Your task to perform on an android device: open app "PUBG MOBILE" Image 0: 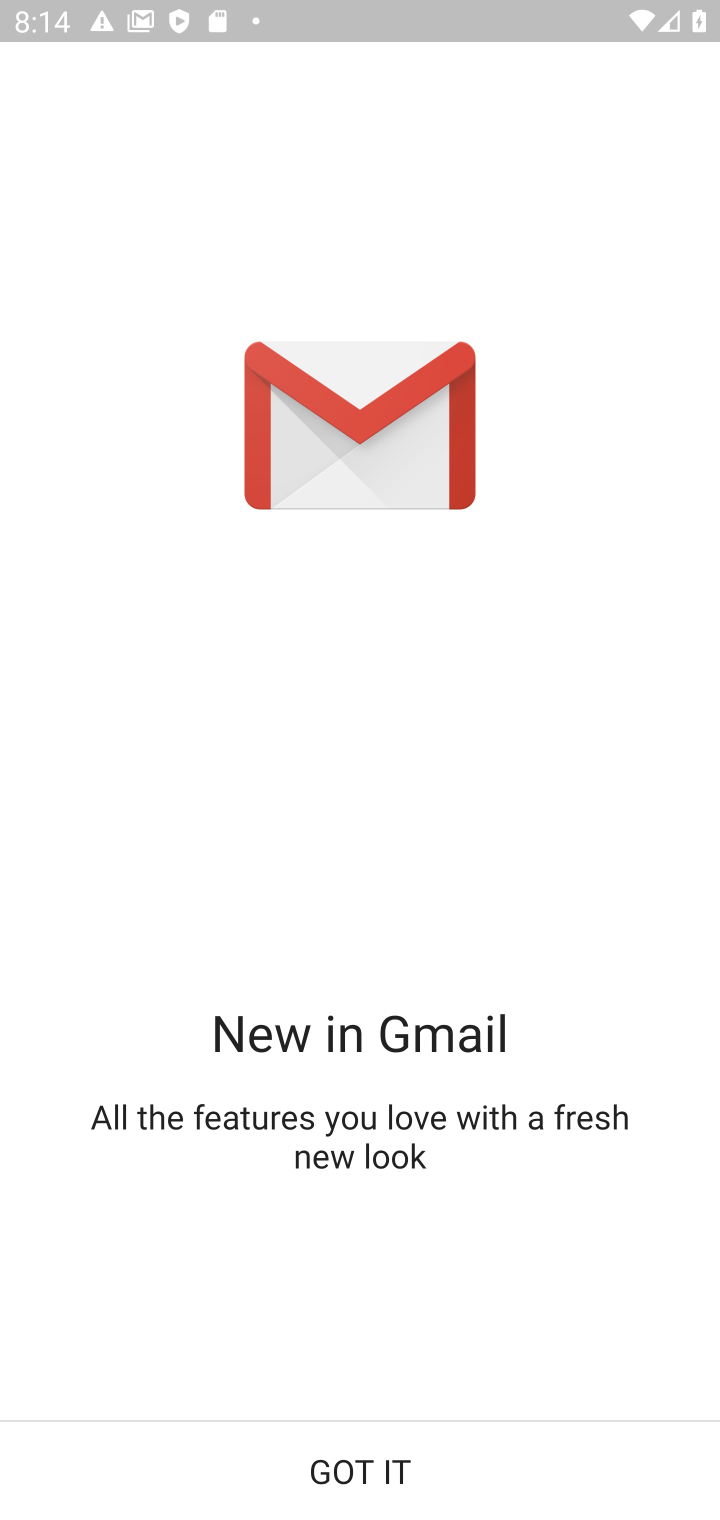
Step 0: press home button
Your task to perform on an android device: open app "PUBG MOBILE" Image 1: 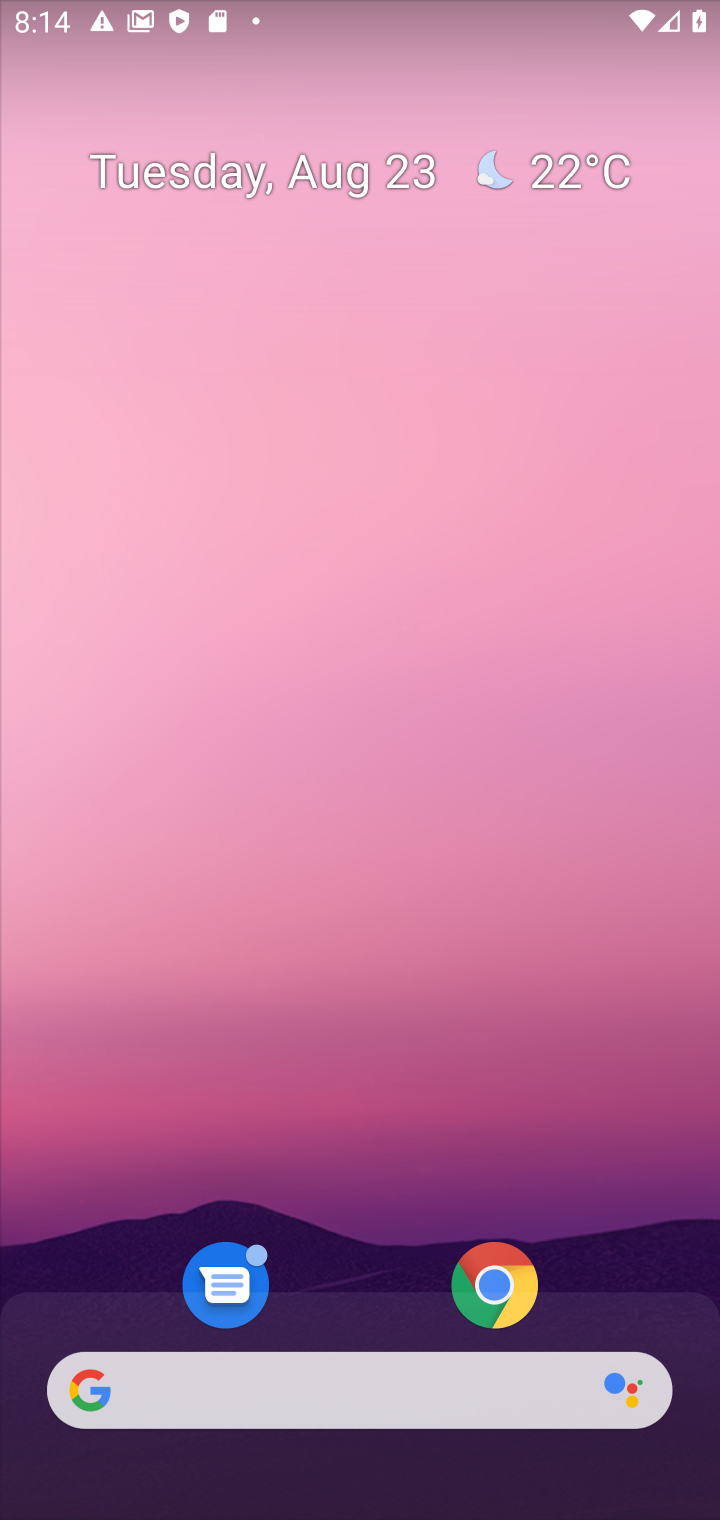
Step 1: drag from (605, 1306) to (554, 186)
Your task to perform on an android device: open app "PUBG MOBILE" Image 2: 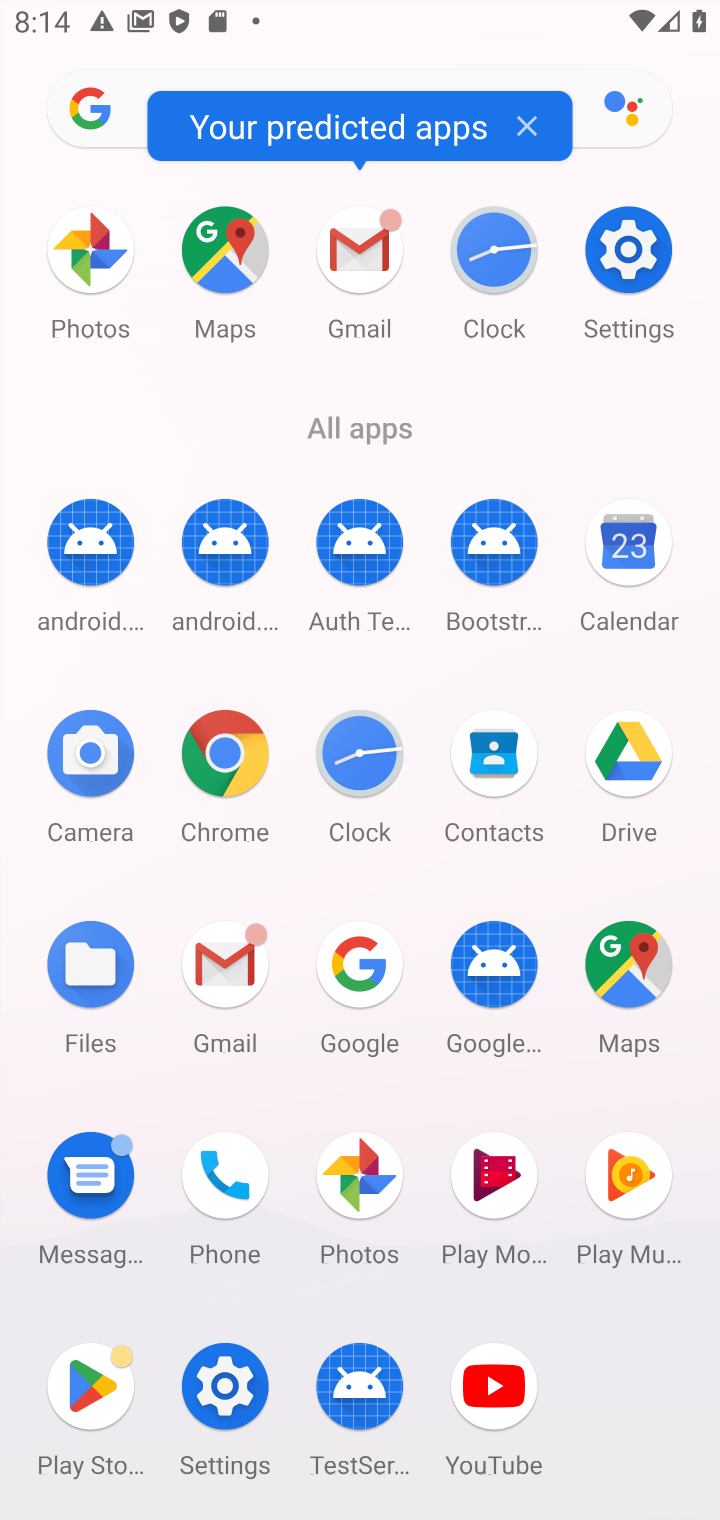
Step 2: click (88, 1384)
Your task to perform on an android device: open app "PUBG MOBILE" Image 3: 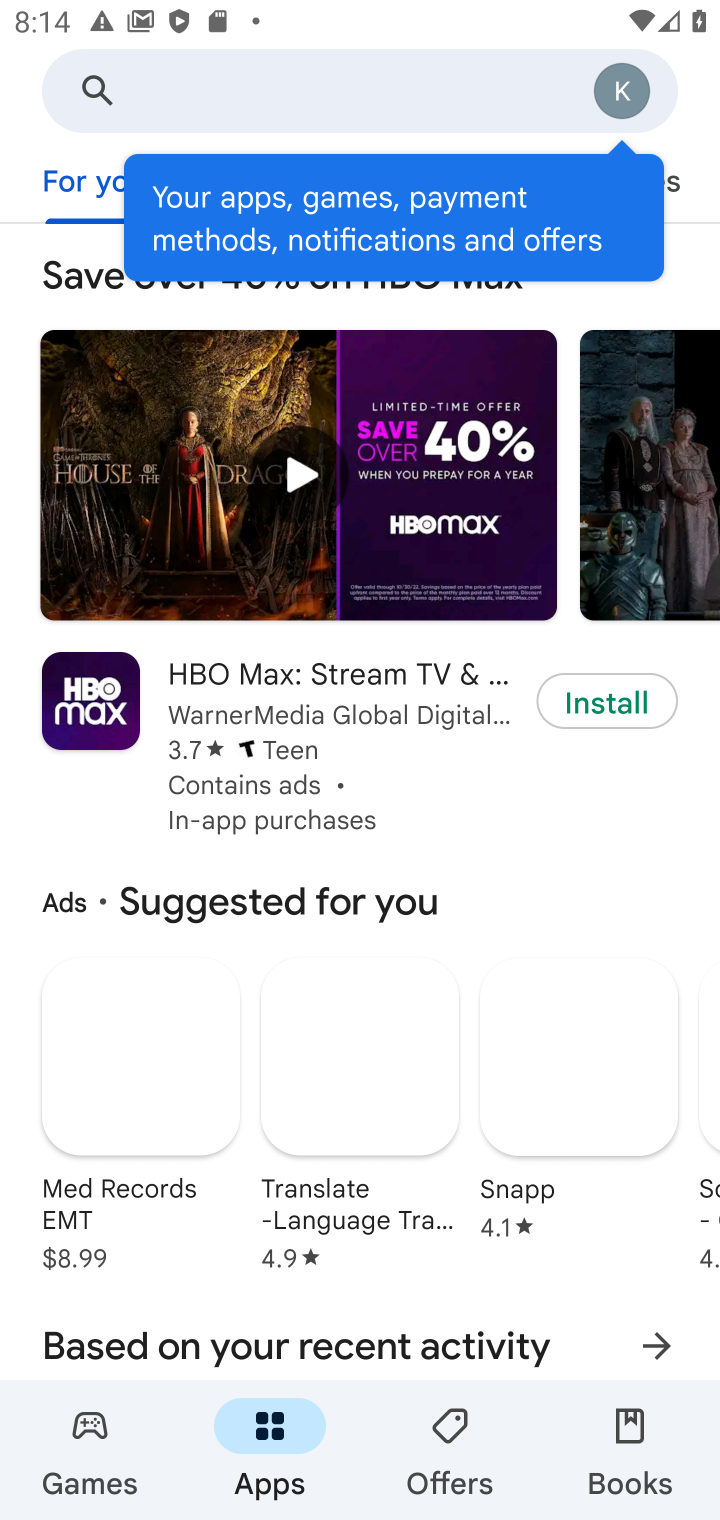
Step 3: click (315, 63)
Your task to perform on an android device: open app "PUBG MOBILE" Image 4: 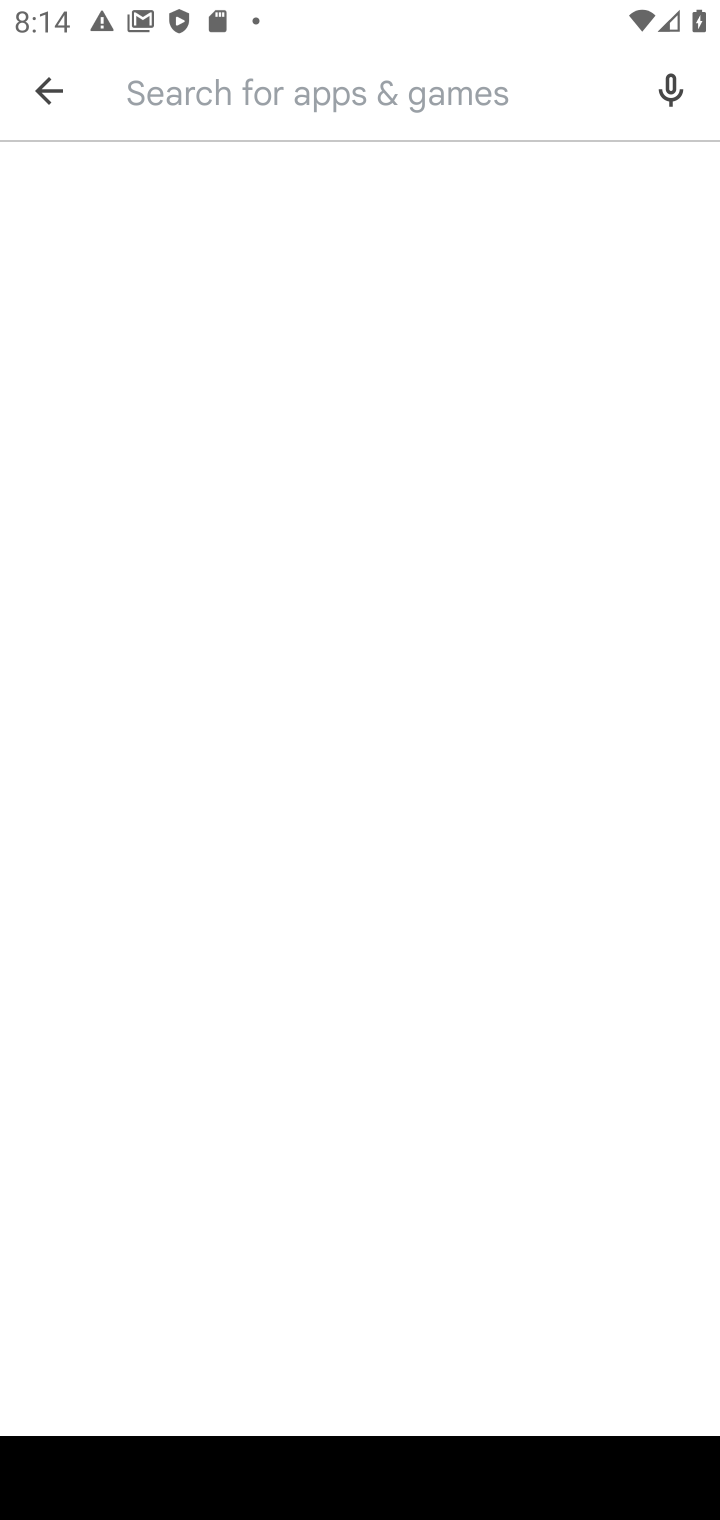
Step 4: type "PUBG MOBILE"
Your task to perform on an android device: open app "PUBG MOBILE" Image 5: 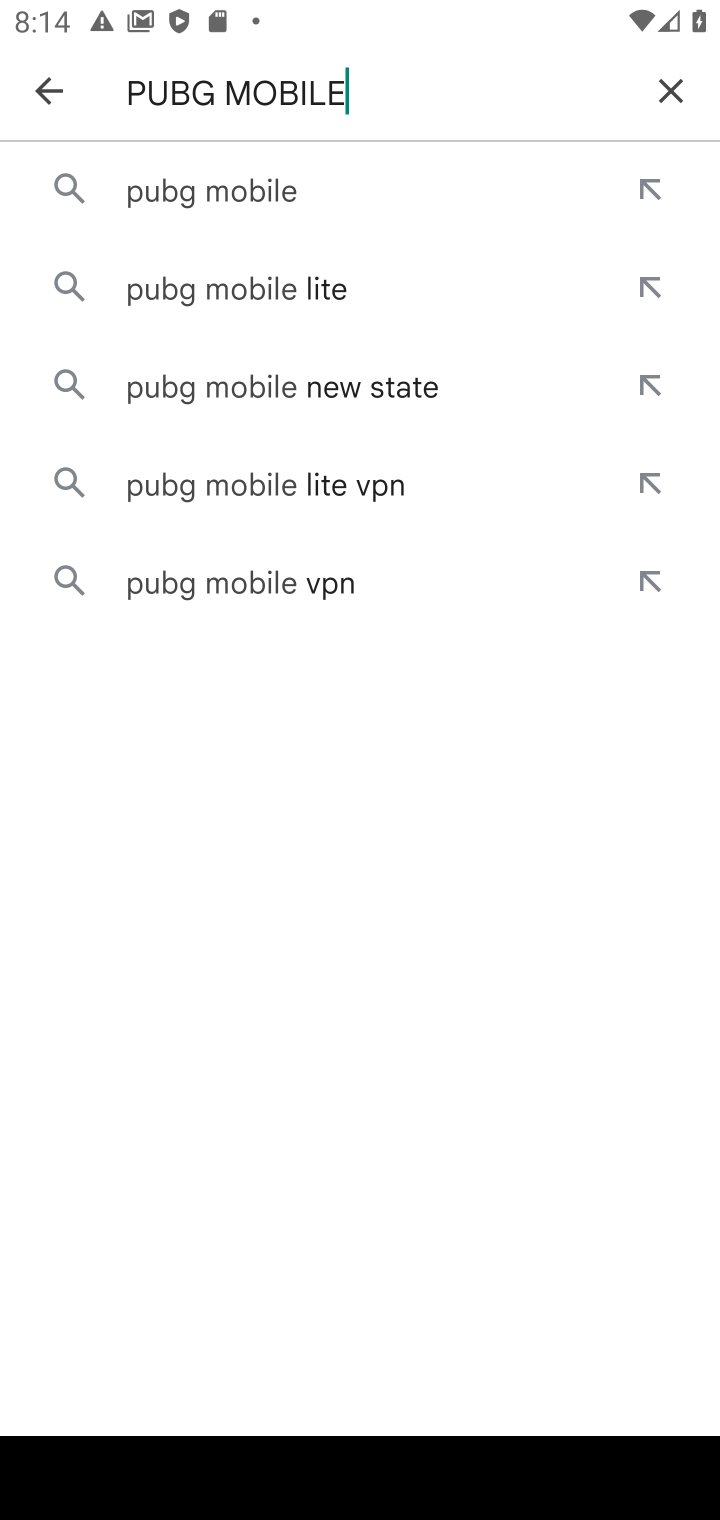
Step 5: click (202, 211)
Your task to perform on an android device: open app "PUBG MOBILE" Image 6: 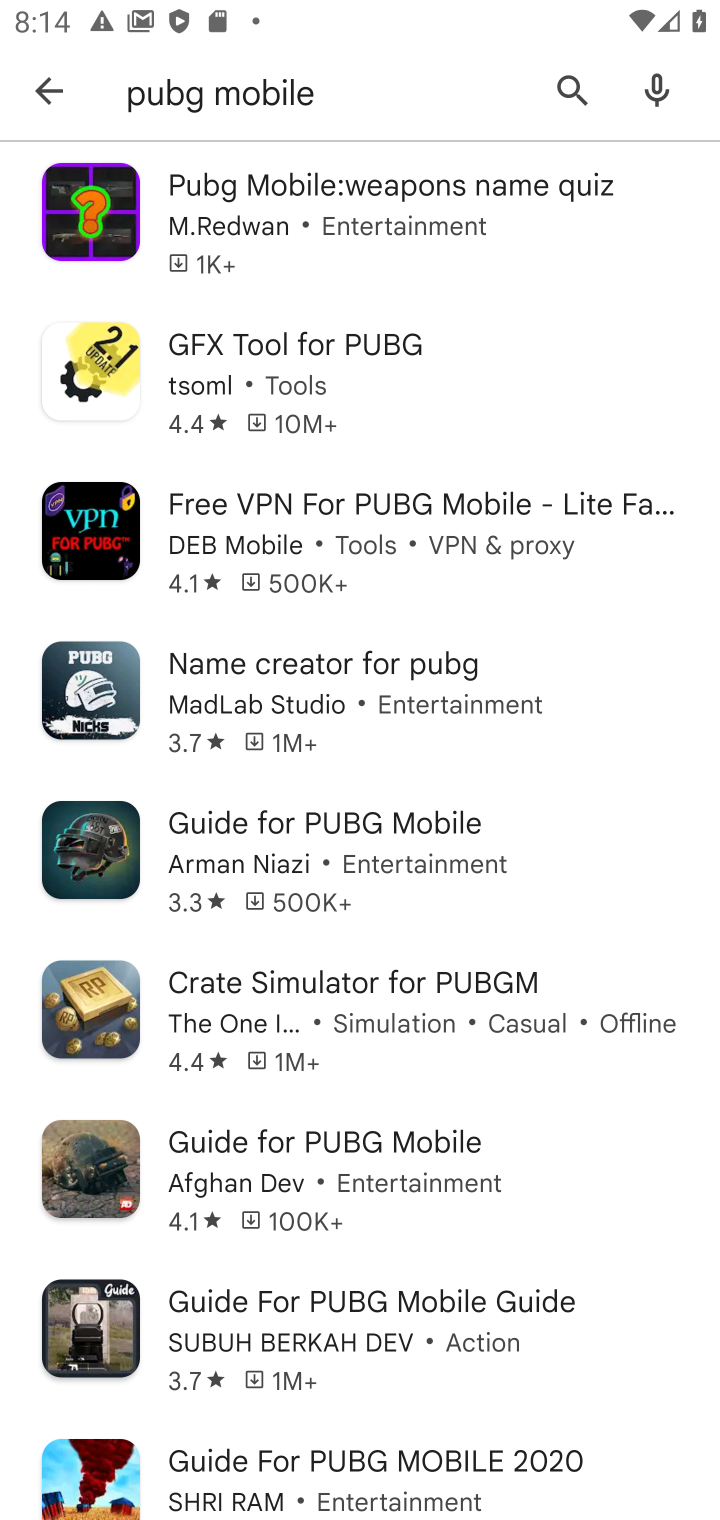
Step 6: task complete